Your task to perform on an android device: toggle notification dots Image 0: 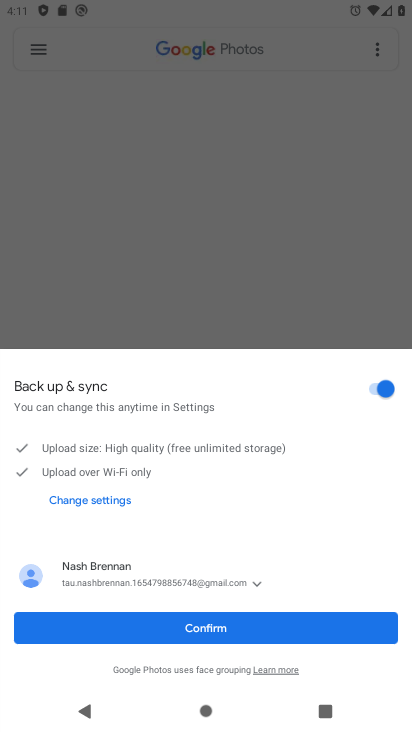
Step 0: press home button
Your task to perform on an android device: toggle notification dots Image 1: 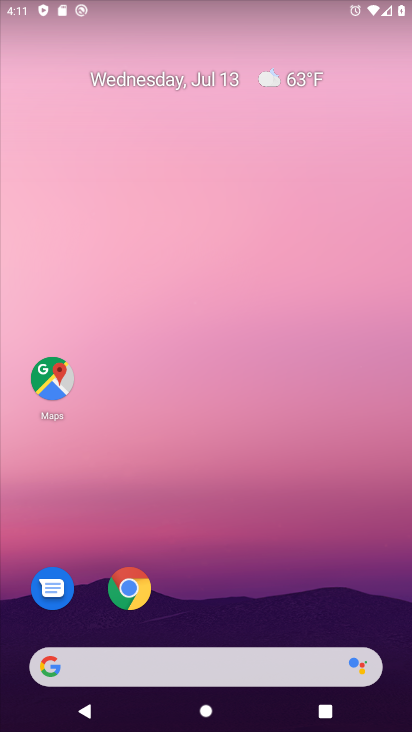
Step 1: drag from (162, 666) to (164, 278)
Your task to perform on an android device: toggle notification dots Image 2: 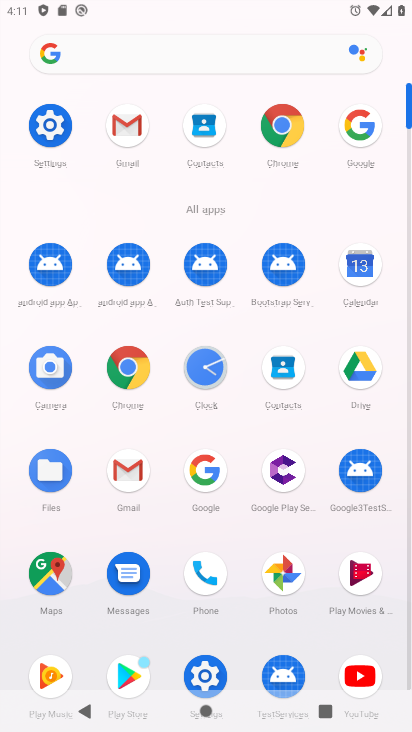
Step 2: click (50, 127)
Your task to perform on an android device: toggle notification dots Image 3: 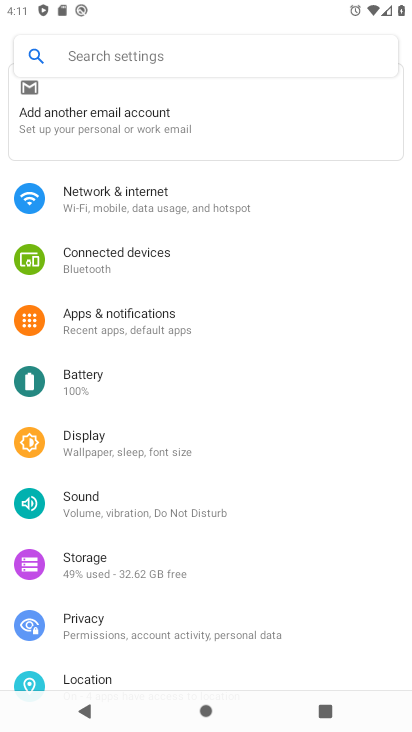
Step 3: click (148, 329)
Your task to perform on an android device: toggle notification dots Image 4: 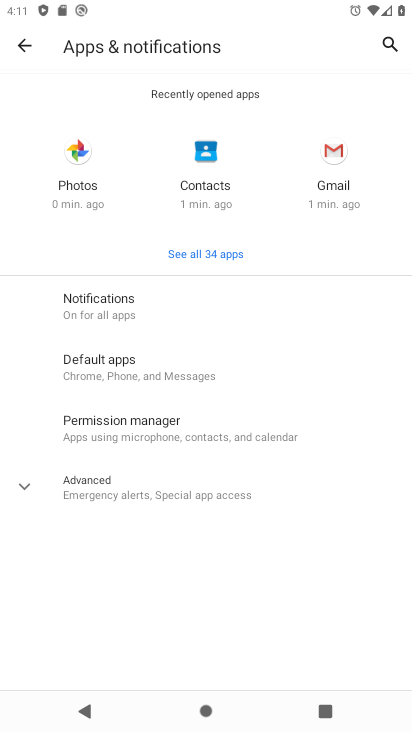
Step 4: click (120, 306)
Your task to perform on an android device: toggle notification dots Image 5: 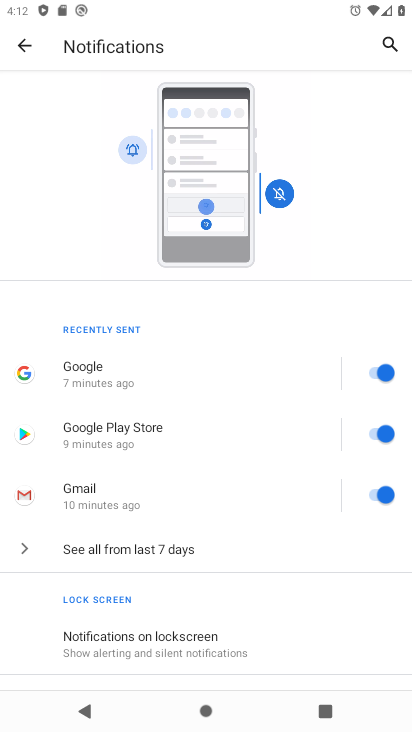
Step 5: drag from (256, 610) to (257, 399)
Your task to perform on an android device: toggle notification dots Image 6: 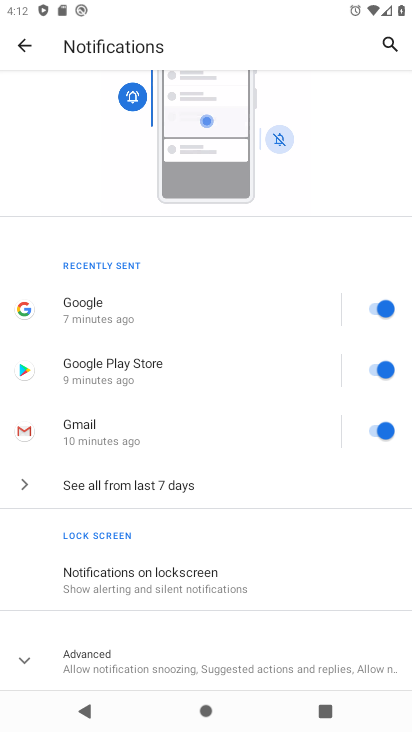
Step 6: click (235, 666)
Your task to perform on an android device: toggle notification dots Image 7: 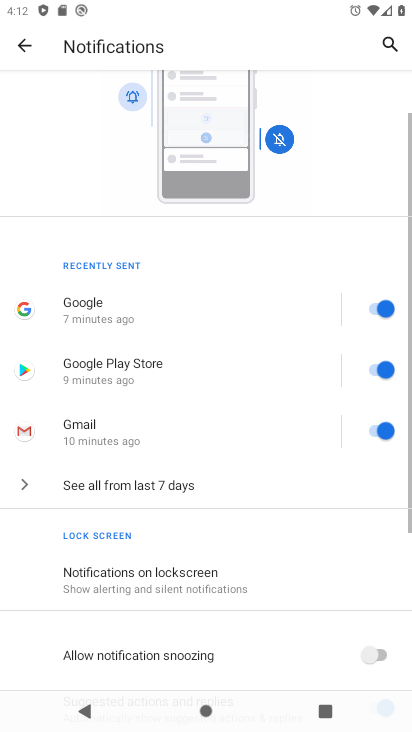
Step 7: drag from (255, 631) to (267, 349)
Your task to perform on an android device: toggle notification dots Image 8: 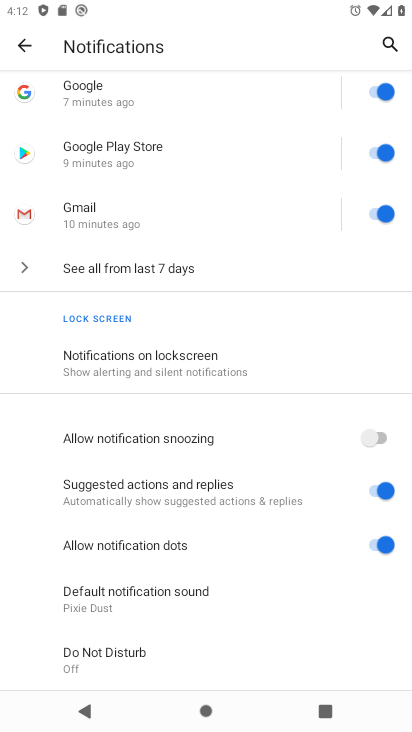
Step 8: click (389, 547)
Your task to perform on an android device: toggle notification dots Image 9: 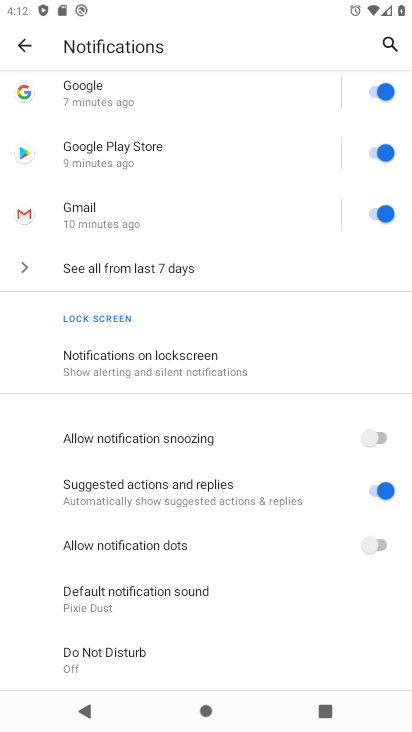
Step 9: task complete